Your task to perform on an android device: Search for vegetarian restaurants on Maps Image 0: 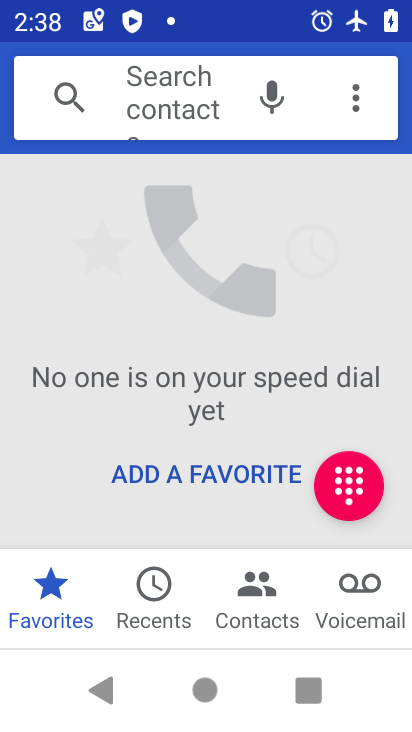
Step 0: press home button
Your task to perform on an android device: Search for vegetarian restaurants on Maps Image 1: 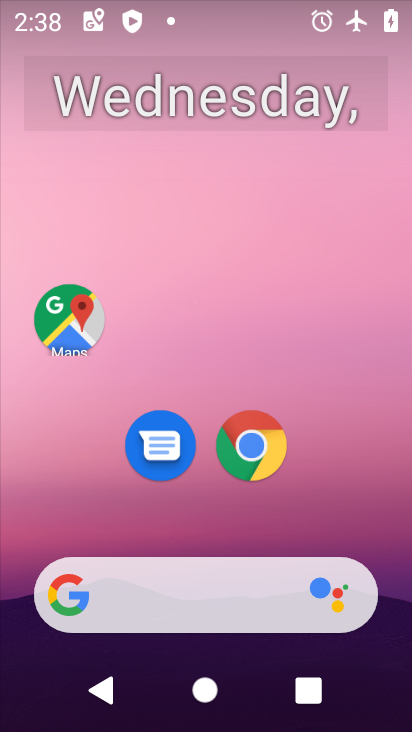
Step 1: click (46, 280)
Your task to perform on an android device: Search for vegetarian restaurants on Maps Image 2: 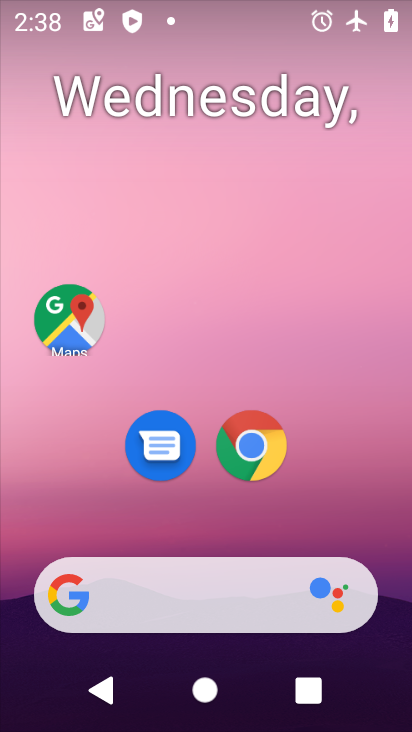
Step 2: click (77, 352)
Your task to perform on an android device: Search for vegetarian restaurants on Maps Image 3: 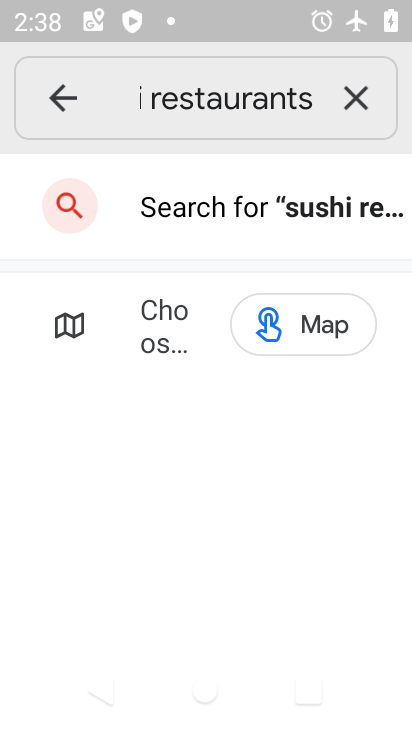
Step 3: click (337, 108)
Your task to perform on an android device: Search for vegetarian restaurants on Maps Image 4: 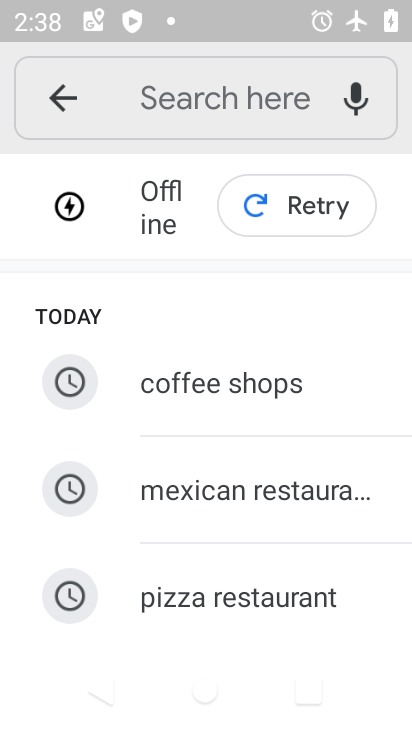
Step 4: click (168, 104)
Your task to perform on an android device: Search for vegetarian restaurants on Maps Image 5: 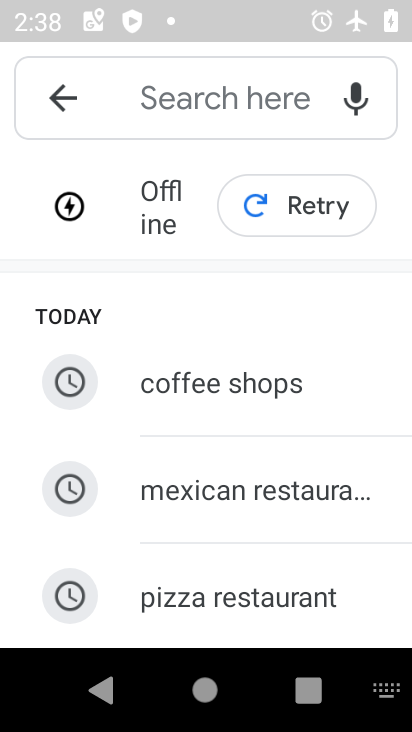
Step 5: type "vegetarian restaurants"
Your task to perform on an android device: Search for vegetarian restaurants on Maps Image 6: 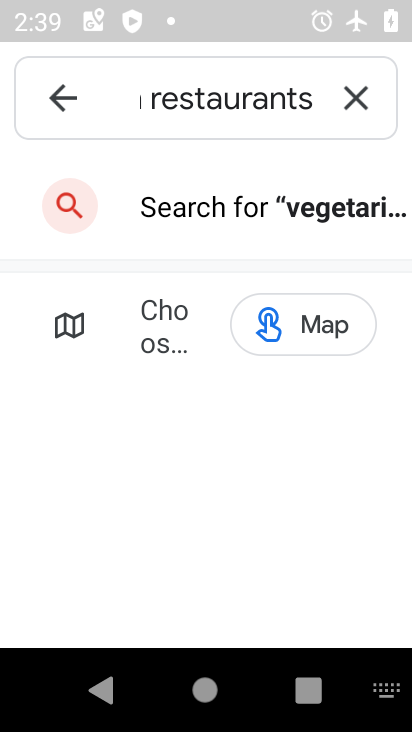
Step 6: task complete